Your task to perform on an android device: Toggle the flashlight Image 0: 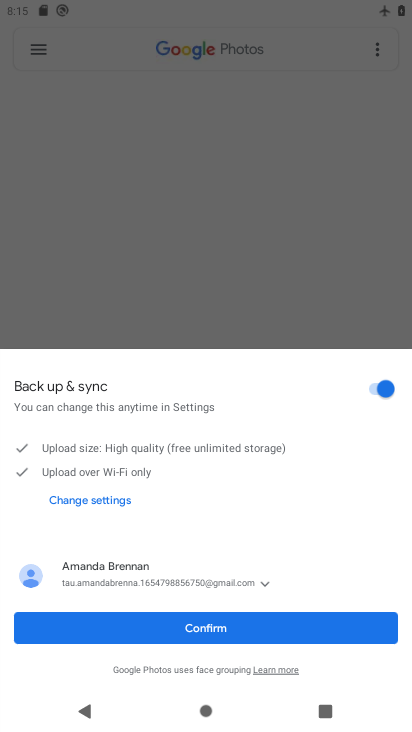
Step 0: press home button
Your task to perform on an android device: Toggle the flashlight Image 1: 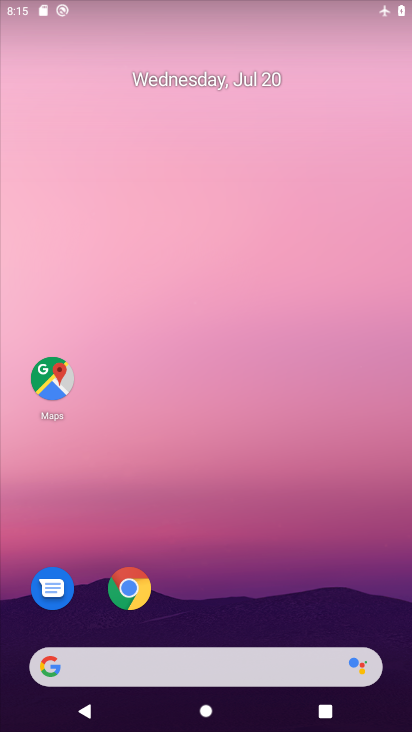
Step 1: drag from (213, 634) to (252, 96)
Your task to perform on an android device: Toggle the flashlight Image 2: 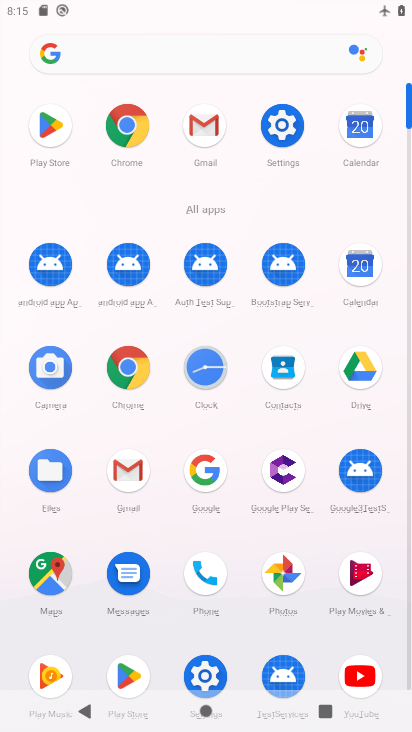
Step 2: click (278, 118)
Your task to perform on an android device: Toggle the flashlight Image 3: 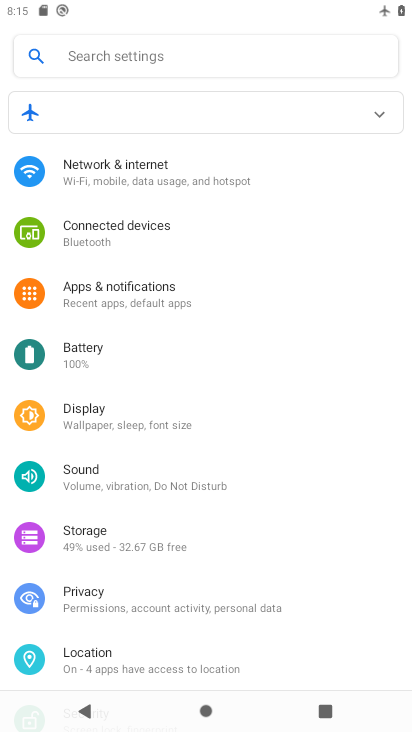
Step 3: click (132, 50)
Your task to perform on an android device: Toggle the flashlight Image 4: 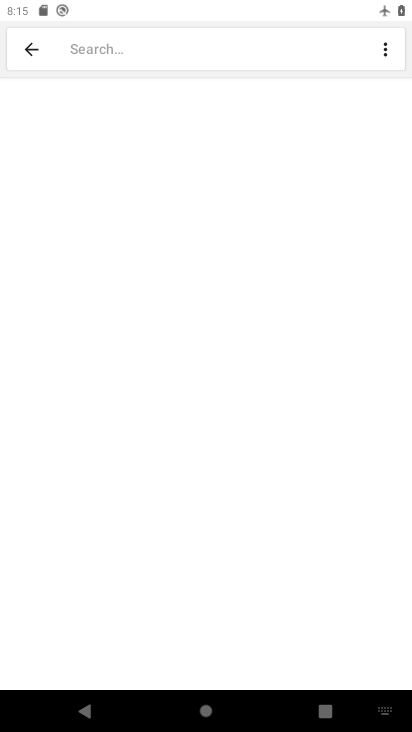
Step 4: type "flashlight"
Your task to perform on an android device: Toggle the flashlight Image 5: 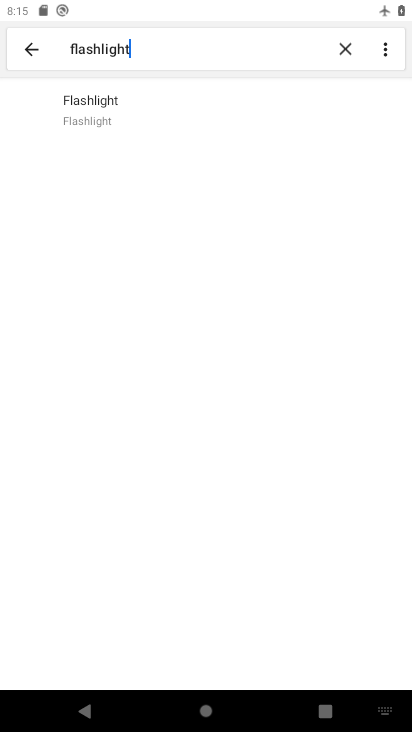
Step 5: click (113, 102)
Your task to perform on an android device: Toggle the flashlight Image 6: 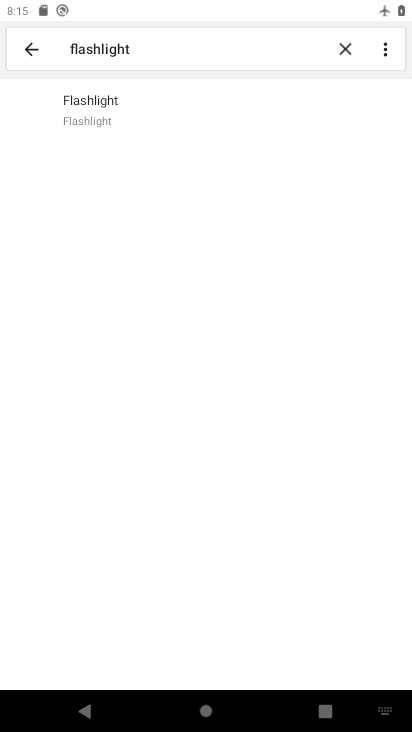
Step 6: click (135, 120)
Your task to perform on an android device: Toggle the flashlight Image 7: 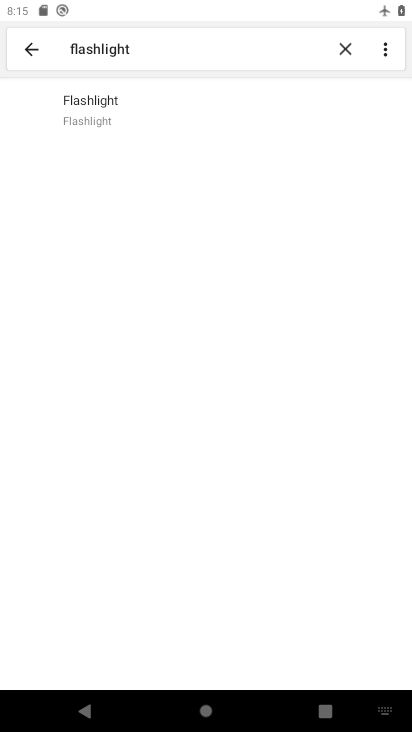
Step 7: task complete